Your task to perform on an android device: Do I have any events tomorrow? Image 0: 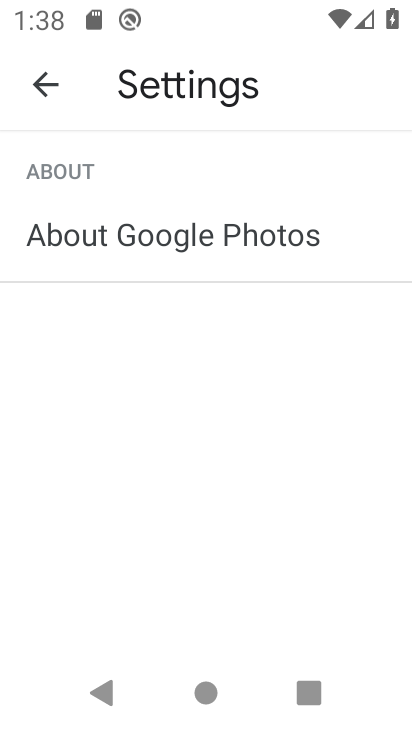
Step 0: press home button
Your task to perform on an android device: Do I have any events tomorrow? Image 1: 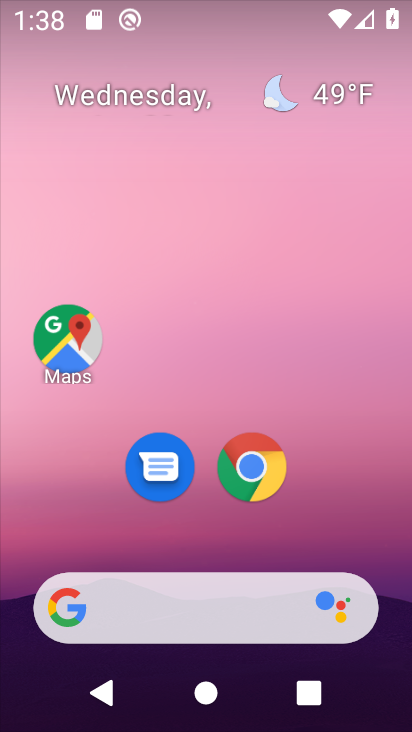
Step 1: drag from (395, 603) to (316, 186)
Your task to perform on an android device: Do I have any events tomorrow? Image 2: 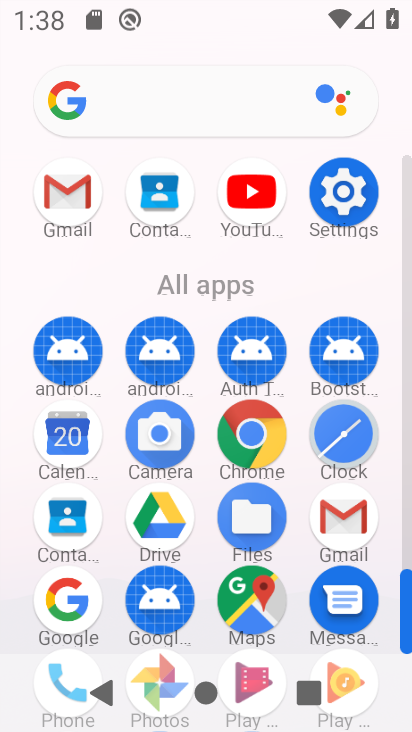
Step 2: drag from (408, 558) to (404, 490)
Your task to perform on an android device: Do I have any events tomorrow? Image 3: 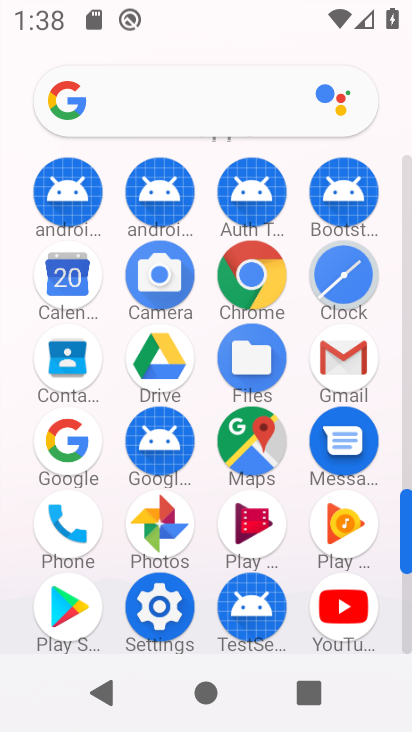
Step 3: click (62, 274)
Your task to perform on an android device: Do I have any events tomorrow? Image 4: 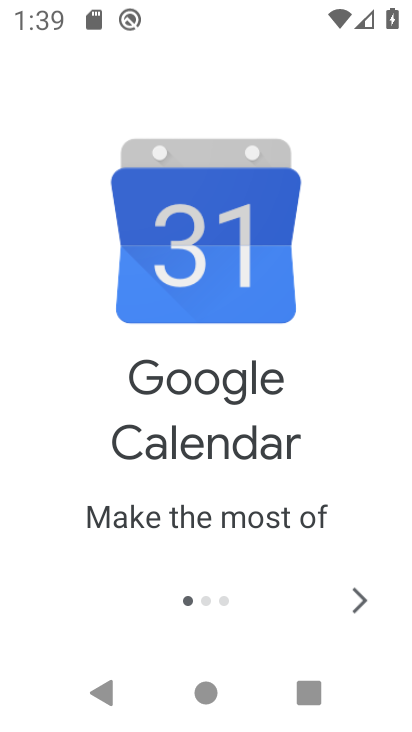
Step 4: click (357, 596)
Your task to perform on an android device: Do I have any events tomorrow? Image 5: 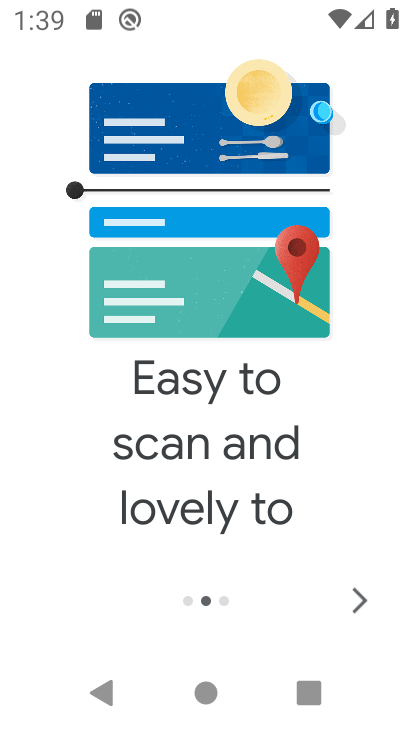
Step 5: click (357, 596)
Your task to perform on an android device: Do I have any events tomorrow? Image 6: 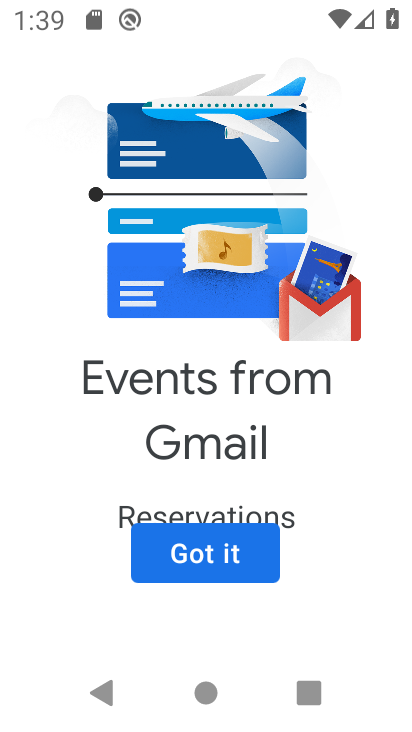
Step 6: click (188, 547)
Your task to perform on an android device: Do I have any events tomorrow? Image 7: 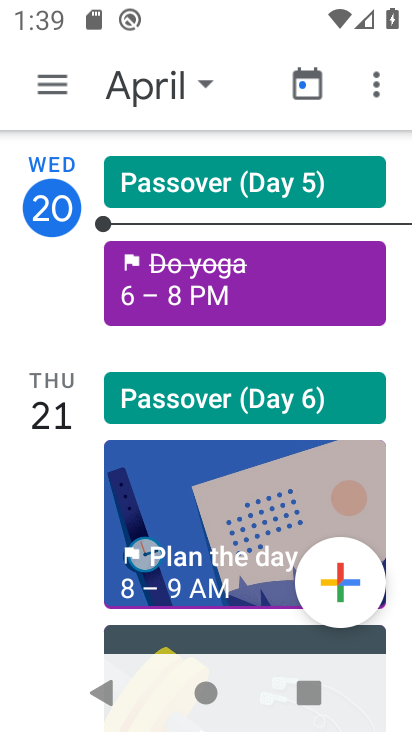
Step 7: click (53, 84)
Your task to perform on an android device: Do I have any events tomorrow? Image 8: 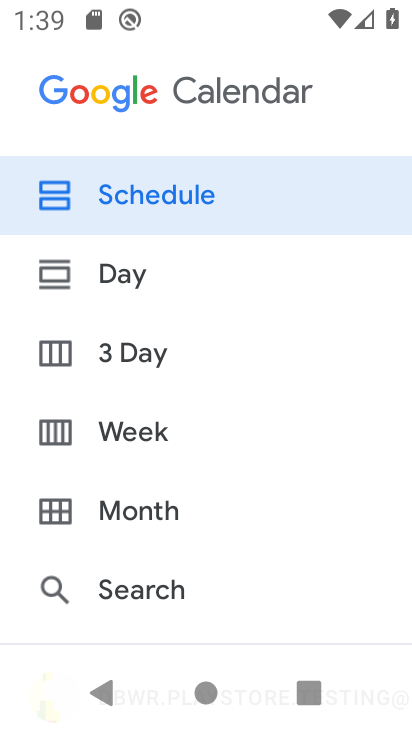
Step 8: click (120, 273)
Your task to perform on an android device: Do I have any events tomorrow? Image 9: 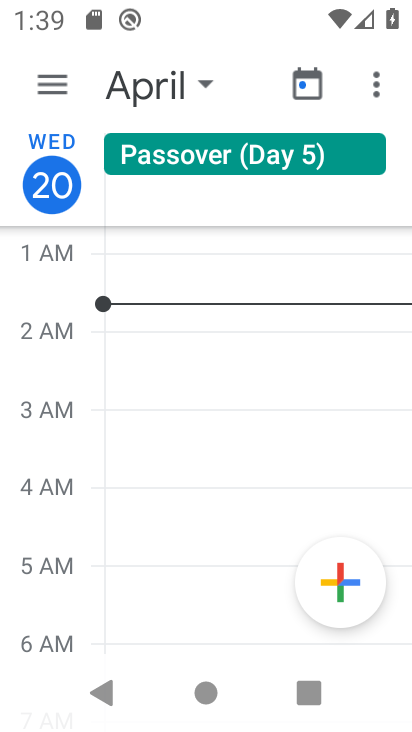
Step 9: click (201, 82)
Your task to perform on an android device: Do I have any events tomorrow? Image 10: 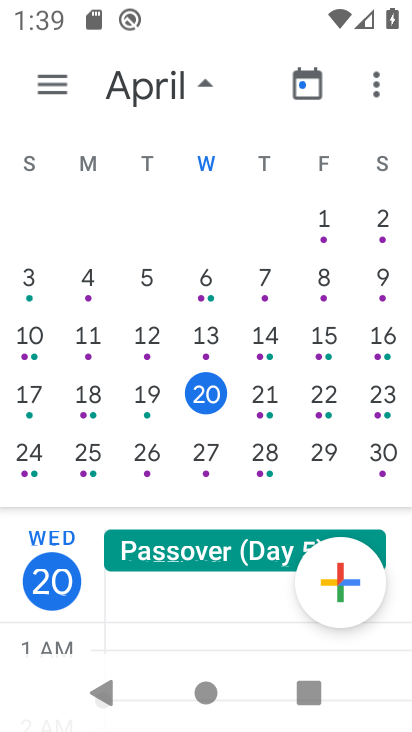
Step 10: click (265, 395)
Your task to perform on an android device: Do I have any events tomorrow? Image 11: 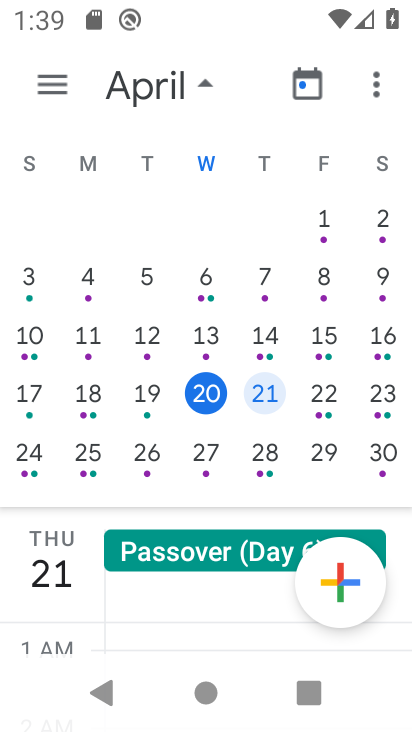
Step 11: task complete